Your task to perform on an android device: Clear all items from cart on newegg.com. Image 0: 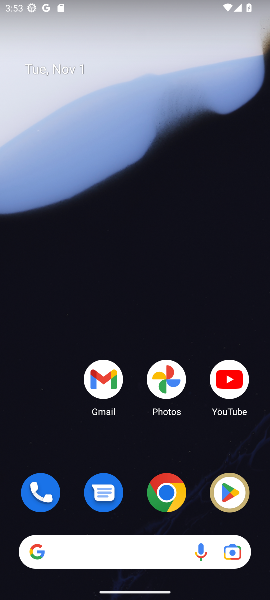
Step 0: click (168, 498)
Your task to perform on an android device: Clear all items from cart on newegg.com. Image 1: 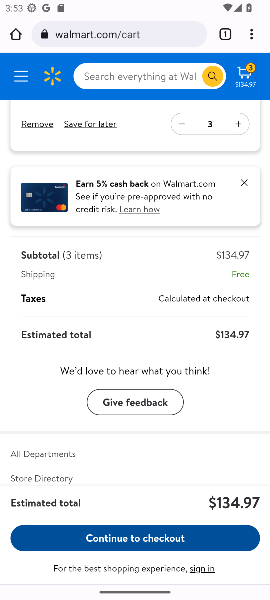
Step 1: click (119, 34)
Your task to perform on an android device: Clear all items from cart on newegg.com. Image 2: 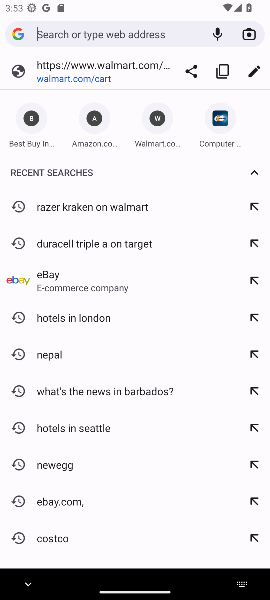
Step 2: type "newegg.com"
Your task to perform on an android device: Clear all items from cart on newegg.com. Image 3: 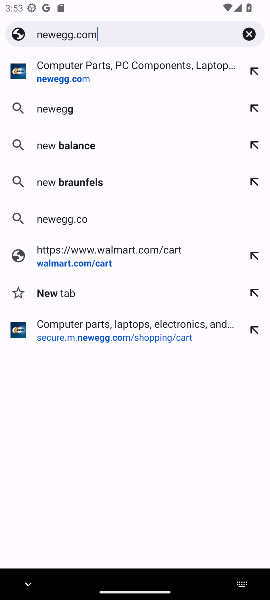
Step 3: type ""
Your task to perform on an android device: Clear all items from cart on newegg.com. Image 4: 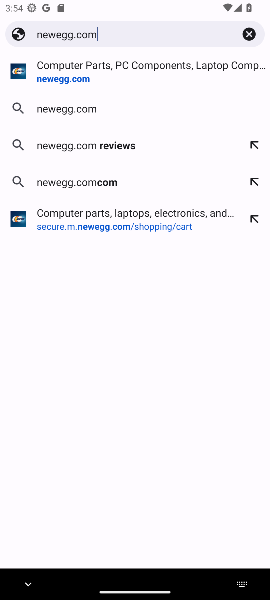
Step 4: click (113, 71)
Your task to perform on an android device: Clear all items from cart on newegg.com. Image 5: 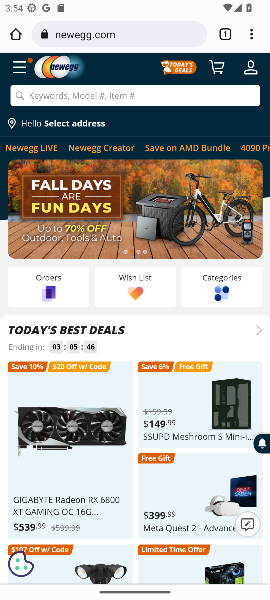
Step 5: click (223, 68)
Your task to perform on an android device: Clear all items from cart on newegg.com. Image 6: 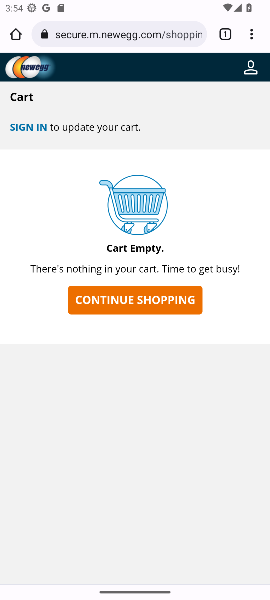
Step 6: click (169, 302)
Your task to perform on an android device: Clear all items from cart on newegg.com. Image 7: 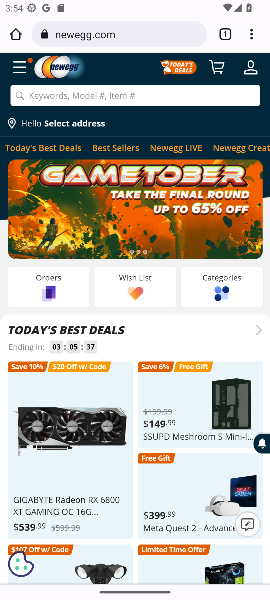
Step 7: drag from (97, 527) to (106, 295)
Your task to perform on an android device: Clear all items from cart on newegg.com. Image 8: 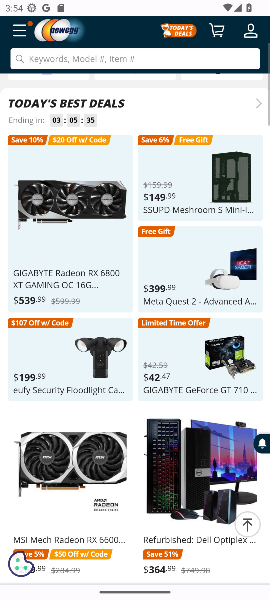
Step 8: drag from (115, 544) to (121, 311)
Your task to perform on an android device: Clear all items from cart on newegg.com. Image 9: 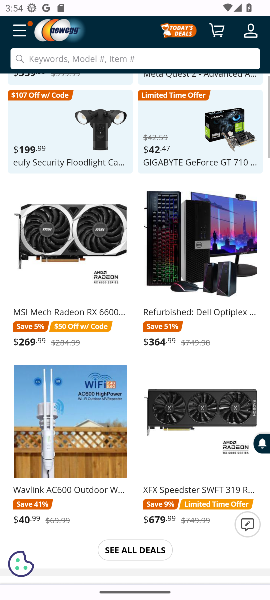
Step 9: drag from (107, 495) to (108, 316)
Your task to perform on an android device: Clear all items from cart on newegg.com. Image 10: 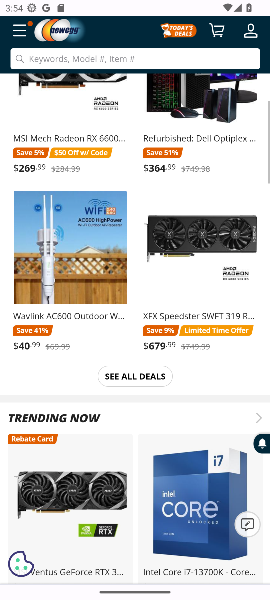
Step 10: drag from (112, 480) to (135, 314)
Your task to perform on an android device: Clear all items from cart on newegg.com. Image 11: 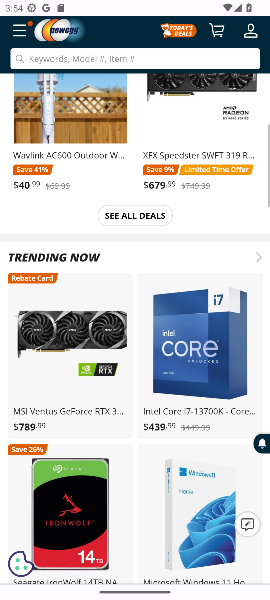
Step 11: drag from (130, 418) to (137, 287)
Your task to perform on an android device: Clear all items from cart on newegg.com. Image 12: 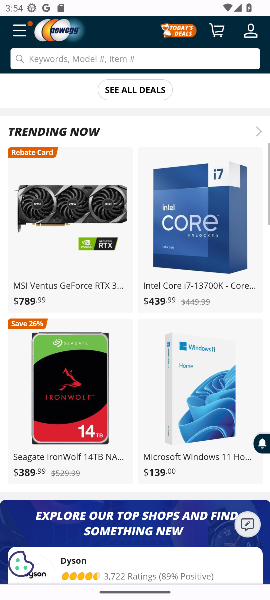
Step 12: drag from (121, 385) to (141, 301)
Your task to perform on an android device: Clear all items from cart on newegg.com. Image 13: 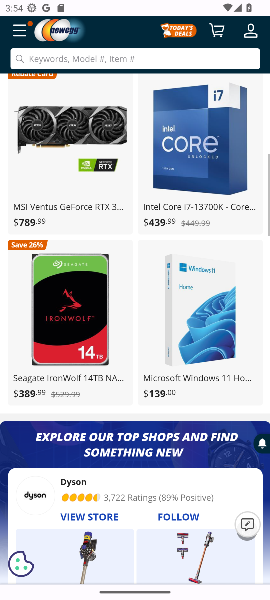
Step 13: drag from (131, 408) to (145, 294)
Your task to perform on an android device: Clear all items from cart on newegg.com. Image 14: 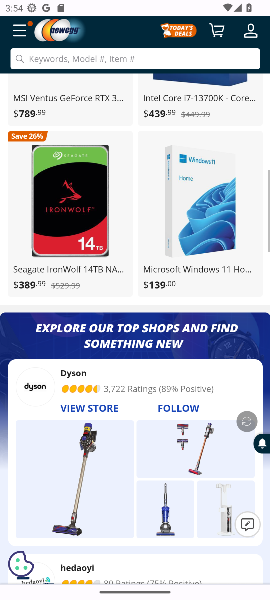
Step 14: drag from (133, 366) to (144, 300)
Your task to perform on an android device: Clear all items from cart on newegg.com. Image 15: 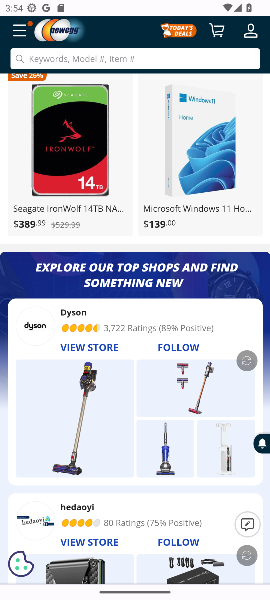
Step 15: drag from (166, 389) to (158, 304)
Your task to perform on an android device: Clear all items from cart on newegg.com. Image 16: 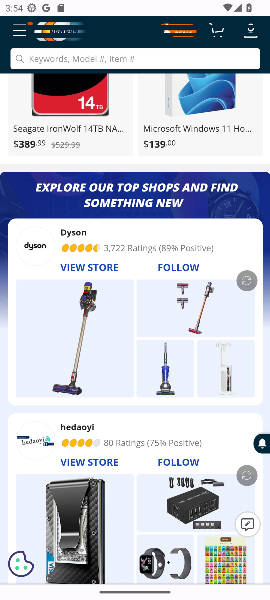
Step 16: drag from (140, 400) to (177, 264)
Your task to perform on an android device: Clear all items from cart on newegg.com. Image 17: 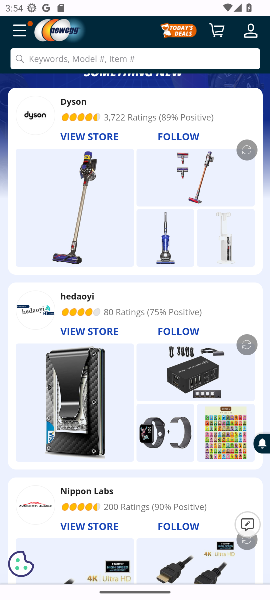
Step 17: drag from (139, 430) to (166, 272)
Your task to perform on an android device: Clear all items from cart on newegg.com. Image 18: 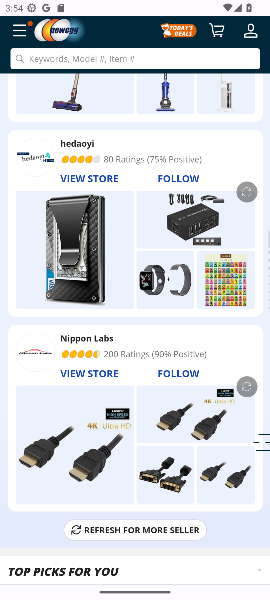
Step 18: drag from (168, 482) to (180, 247)
Your task to perform on an android device: Clear all items from cart on newegg.com. Image 19: 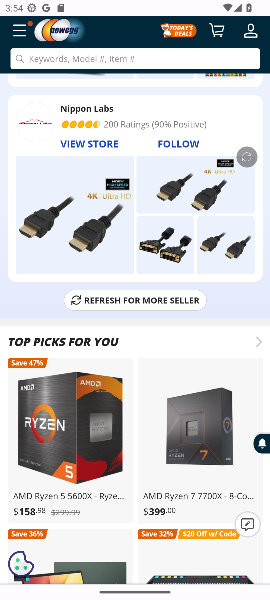
Step 19: drag from (173, 390) to (191, 239)
Your task to perform on an android device: Clear all items from cart on newegg.com. Image 20: 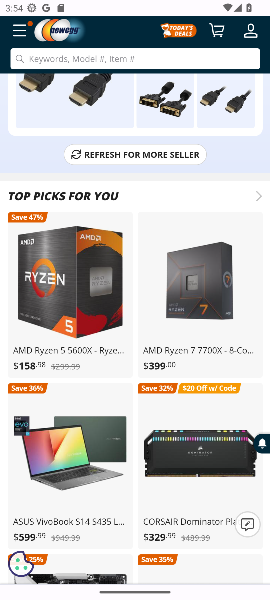
Step 20: drag from (211, 458) to (220, 254)
Your task to perform on an android device: Clear all items from cart on newegg.com. Image 21: 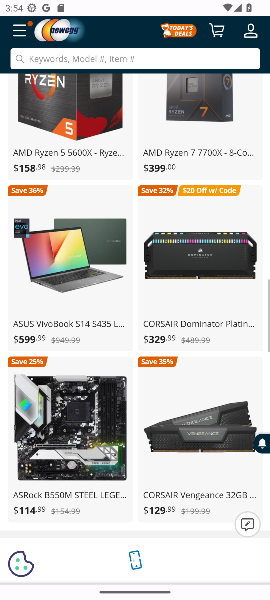
Step 21: drag from (185, 410) to (189, 284)
Your task to perform on an android device: Clear all items from cart on newegg.com. Image 22: 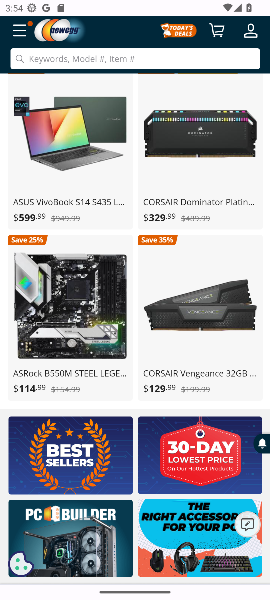
Step 22: drag from (189, 427) to (195, 284)
Your task to perform on an android device: Clear all items from cart on newegg.com. Image 23: 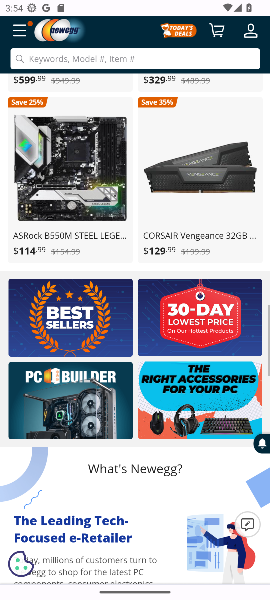
Step 23: drag from (203, 405) to (216, 337)
Your task to perform on an android device: Clear all items from cart on newegg.com. Image 24: 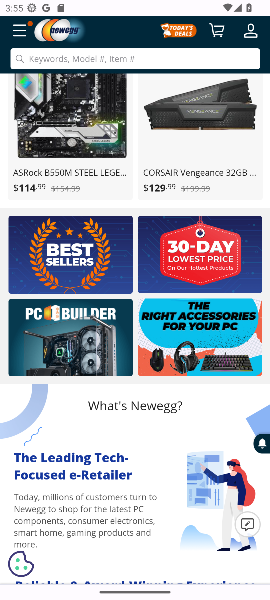
Step 24: drag from (185, 516) to (198, 164)
Your task to perform on an android device: Clear all items from cart on newegg.com. Image 25: 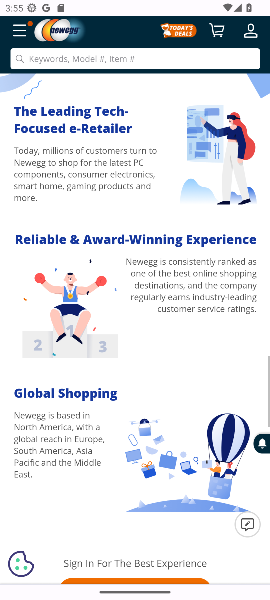
Step 25: drag from (208, 389) to (210, 224)
Your task to perform on an android device: Clear all items from cart on newegg.com. Image 26: 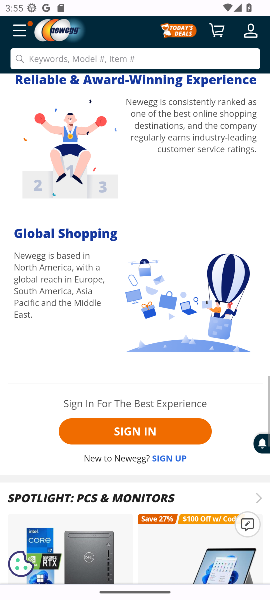
Step 26: drag from (205, 382) to (207, 210)
Your task to perform on an android device: Clear all items from cart on newegg.com. Image 27: 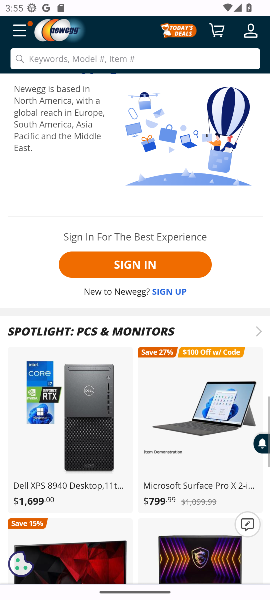
Step 27: drag from (205, 357) to (201, 170)
Your task to perform on an android device: Clear all items from cart on newegg.com. Image 28: 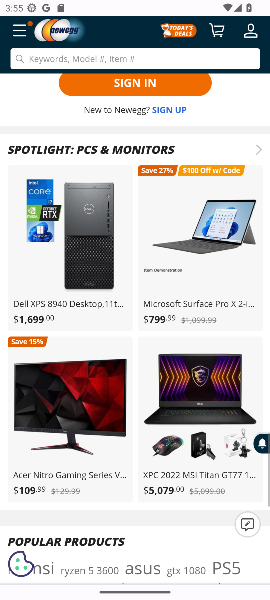
Step 28: drag from (179, 240) to (186, 180)
Your task to perform on an android device: Clear all items from cart on newegg.com. Image 29: 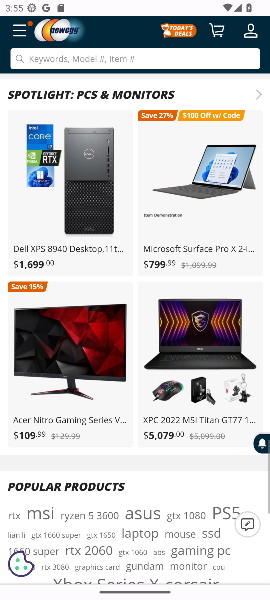
Step 29: drag from (173, 306) to (172, 196)
Your task to perform on an android device: Clear all items from cart on newegg.com. Image 30: 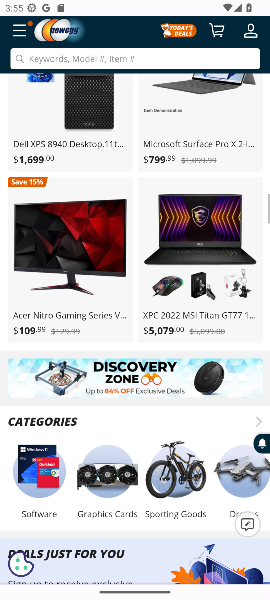
Step 30: drag from (183, 236) to (195, 173)
Your task to perform on an android device: Clear all items from cart on newegg.com. Image 31: 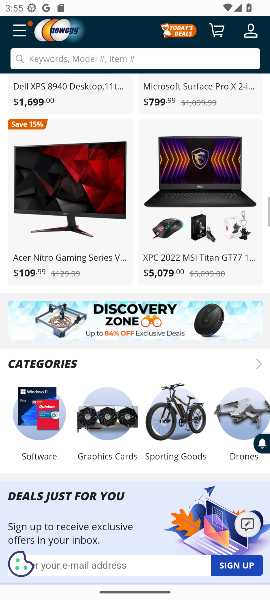
Step 31: drag from (213, 270) to (219, 166)
Your task to perform on an android device: Clear all items from cart on newegg.com. Image 32: 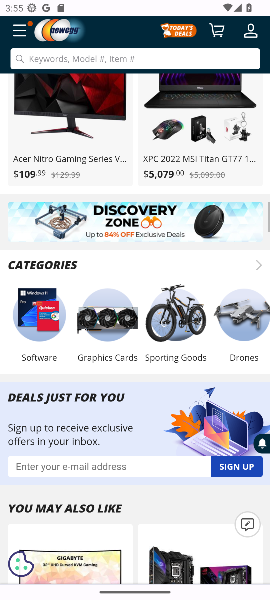
Step 32: drag from (206, 316) to (204, 187)
Your task to perform on an android device: Clear all items from cart on newegg.com. Image 33: 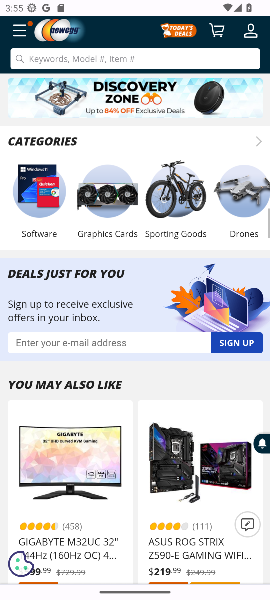
Step 33: drag from (189, 214) to (189, 182)
Your task to perform on an android device: Clear all items from cart on newegg.com. Image 34: 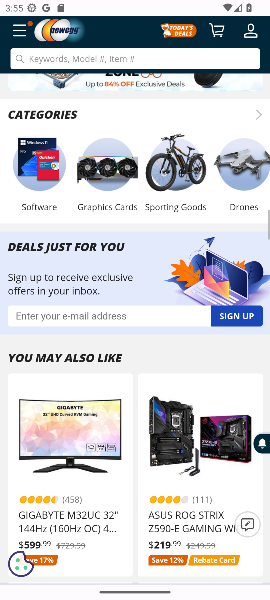
Step 34: drag from (189, 302) to (199, 195)
Your task to perform on an android device: Clear all items from cart on newegg.com. Image 35: 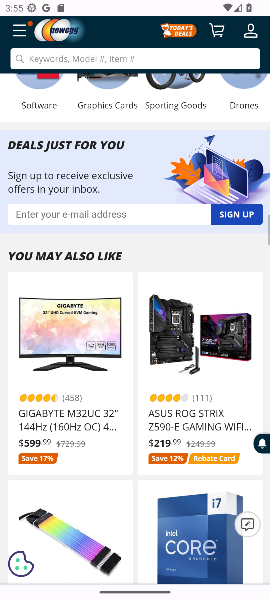
Step 35: drag from (197, 316) to (198, 188)
Your task to perform on an android device: Clear all items from cart on newegg.com. Image 36: 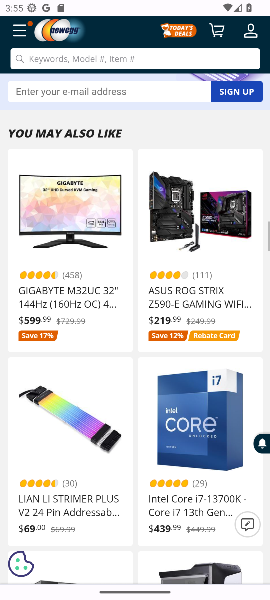
Step 36: drag from (186, 235) to (186, 154)
Your task to perform on an android device: Clear all items from cart on newegg.com. Image 37: 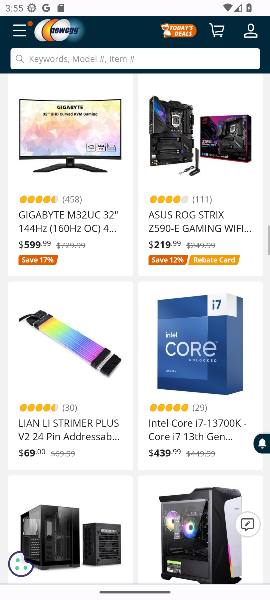
Step 37: drag from (180, 277) to (195, 123)
Your task to perform on an android device: Clear all items from cart on newegg.com. Image 38: 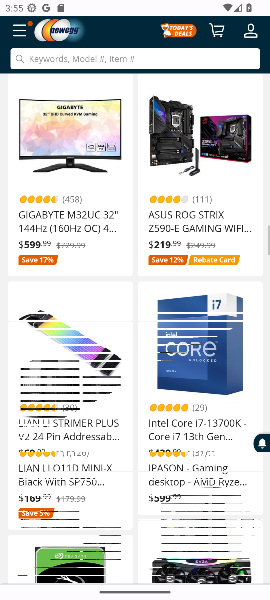
Step 38: drag from (178, 250) to (203, 91)
Your task to perform on an android device: Clear all items from cart on newegg.com. Image 39: 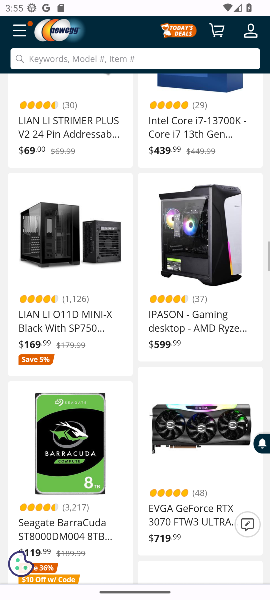
Step 39: drag from (191, 258) to (210, 104)
Your task to perform on an android device: Clear all items from cart on newegg.com. Image 40: 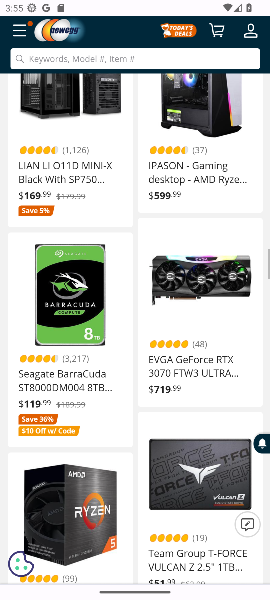
Step 40: drag from (197, 234) to (204, 96)
Your task to perform on an android device: Clear all items from cart on newegg.com. Image 41: 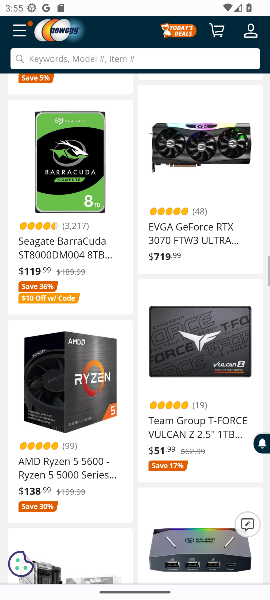
Step 41: drag from (187, 230) to (209, 97)
Your task to perform on an android device: Clear all items from cart on newegg.com. Image 42: 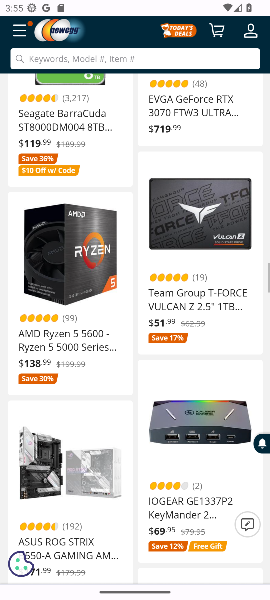
Step 42: drag from (188, 155) to (194, 103)
Your task to perform on an android device: Clear all items from cart on newegg.com. Image 43: 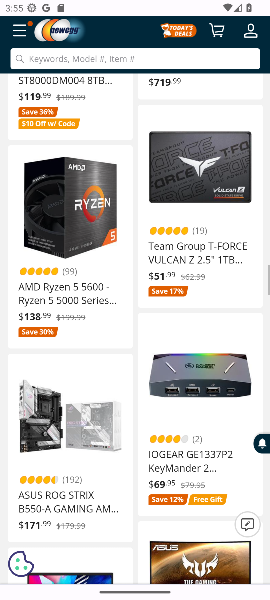
Step 43: drag from (175, 214) to (190, 117)
Your task to perform on an android device: Clear all items from cart on newegg.com. Image 44: 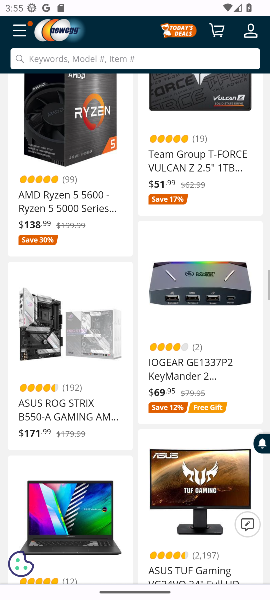
Step 44: drag from (181, 221) to (198, 102)
Your task to perform on an android device: Clear all items from cart on newegg.com. Image 45: 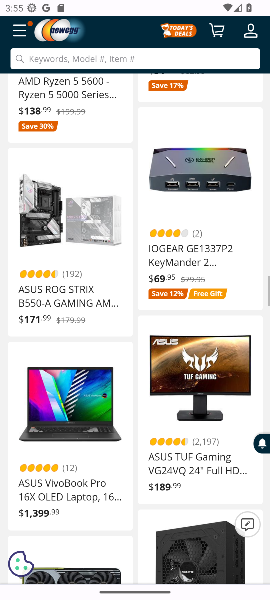
Step 45: click (210, 116)
Your task to perform on an android device: Clear all items from cart on newegg.com. Image 46: 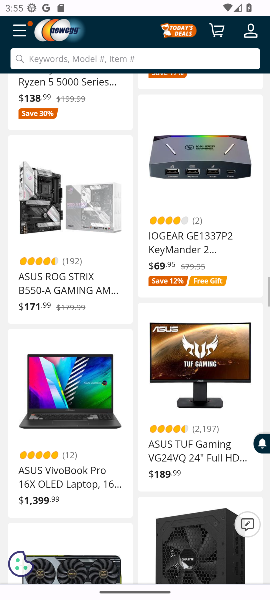
Step 46: drag from (198, 174) to (203, 118)
Your task to perform on an android device: Clear all items from cart on newegg.com. Image 47: 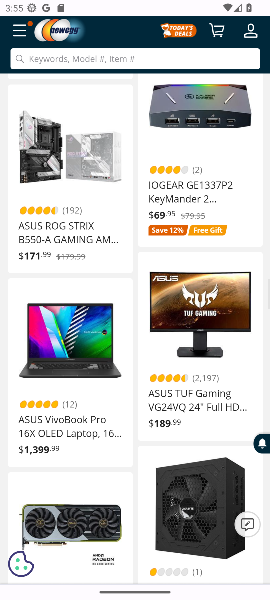
Step 47: click (195, 153)
Your task to perform on an android device: Clear all items from cart on newegg.com. Image 48: 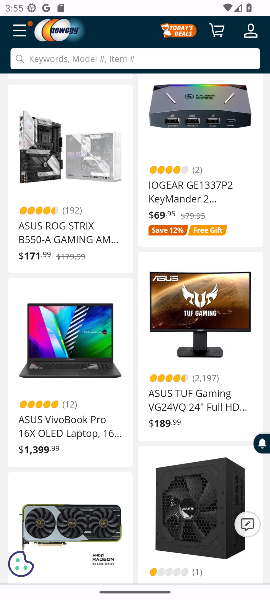
Step 48: click (172, 163)
Your task to perform on an android device: Clear all items from cart on newegg.com. Image 49: 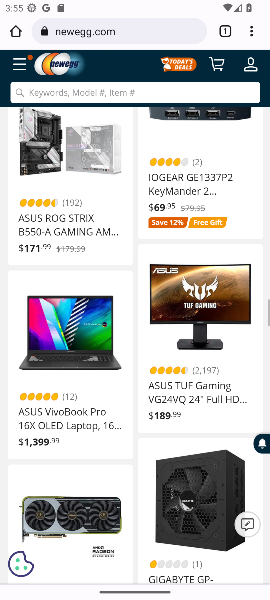
Step 49: drag from (168, 187) to (175, 127)
Your task to perform on an android device: Clear all items from cart on newegg.com. Image 50: 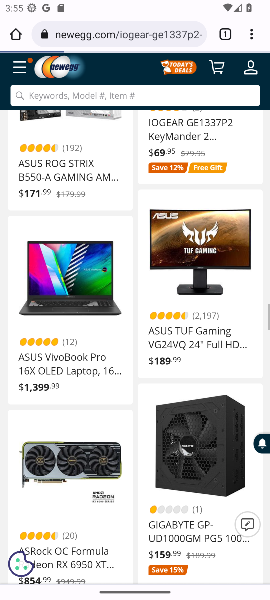
Step 50: drag from (193, 191) to (201, 144)
Your task to perform on an android device: Clear all items from cart on newegg.com. Image 51: 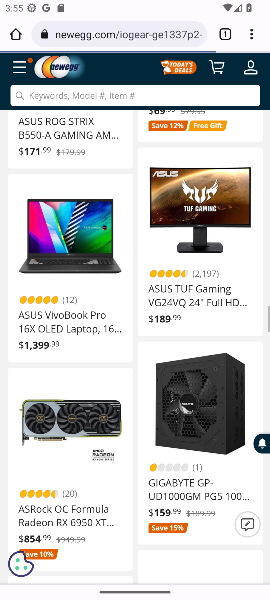
Step 51: drag from (196, 290) to (192, 202)
Your task to perform on an android device: Clear all items from cart on newegg.com. Image 52: 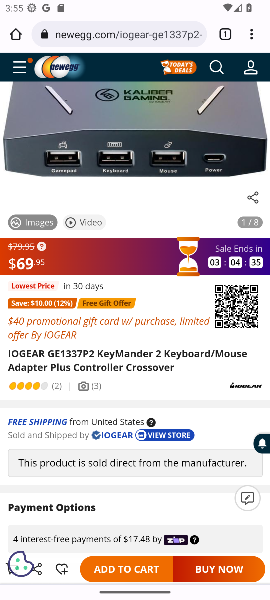
Step 52: drag from (183, 340) to (183, 140)
Your task to perform on an android device: Clear all items from cart on newegg.com. Image 53: 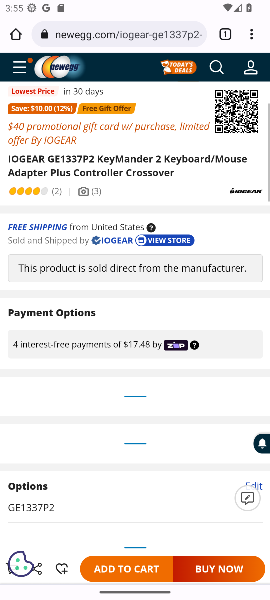
Step 53: drag from (179, 363) to (190, 196)
Your task to perform on an android device: Clear all items from cart on newegg.com. Image 54: 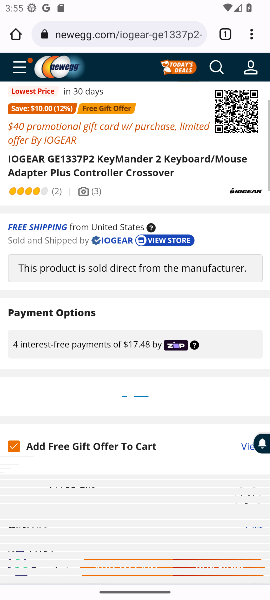
Step 54: drag from (204, 287) to (194, 223)
Your task to perform on an android device: Clear all items from cart on newegg.com. Image 55: 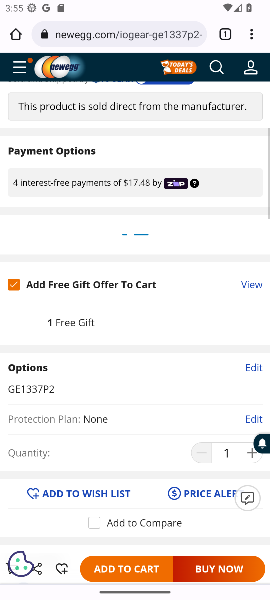
Step 55: drag from (197, 283) to (190, 138)
Your task to perform on an android device: Clear all items from cart on newegg.com. Image 56: 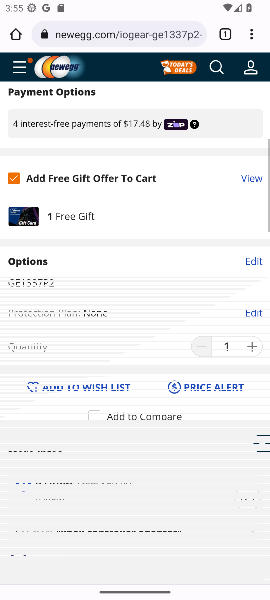
Step 56: drag from (209, 273) to (207, 133)
Your task to perform on an android device: Clear all items from cart on newegg.com. Image 57: 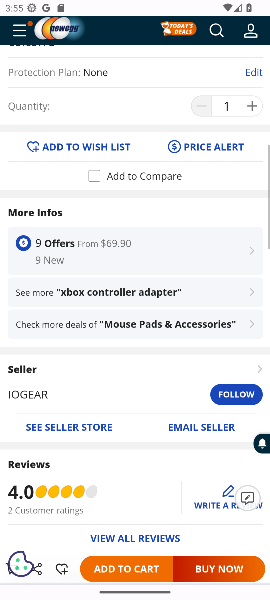
Step 57: drag from (199, 199) to (203, 141)
Your task to perform on an android device: Clear all items from cart on newegg.com. Image 58: 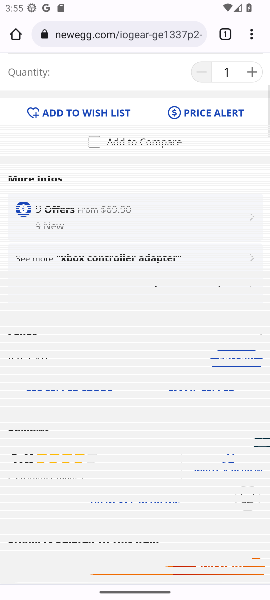
Step 58: drag from (174, 265) to (177, 188)
Your task to perform on an android device: Clear all items from cart on newegg.com. Image 59: 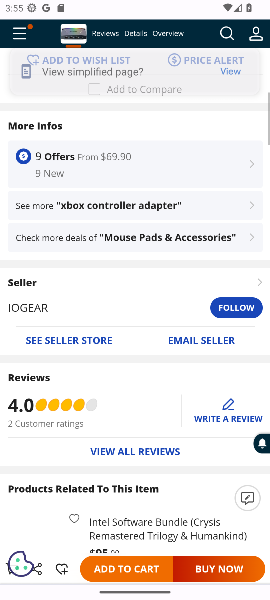
Step 59: drag from (150, 292) to (139, 168)
Your task to perform on an android device: Clear all items from cart on newegg.com. Image 60: 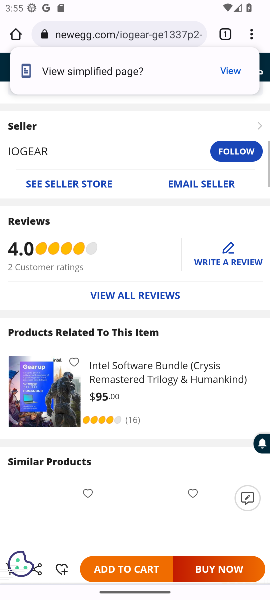
Step 60: drag from (122, 198) to (130, 156)
Your task to perform on an android device: Clear all items from cart on newegg.com. Image 61: 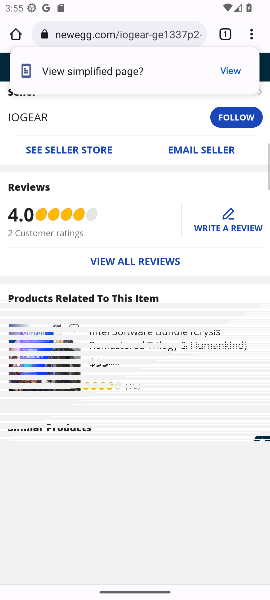
Step 61: drag from (131, 267) to (141, 132)
Your task to perform on an android device: Clear all items from cart on newegg.com. Image 62: 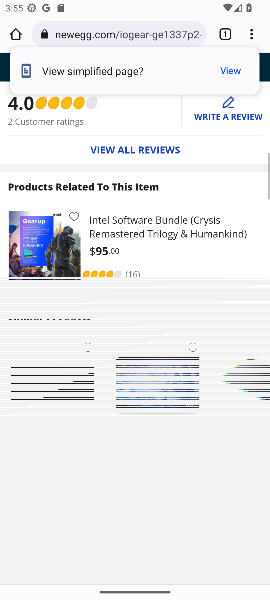
Step 62: drag from (155, 244) to (157, 145)
Your task to perform on an android device: Clear all items from cart on newegg.com. Image 63: 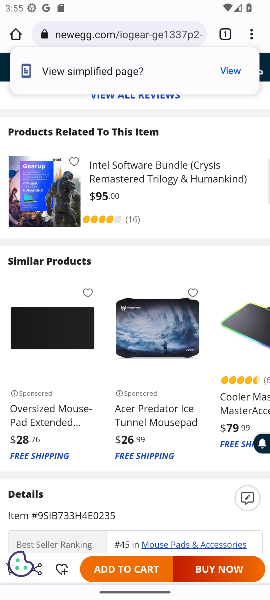
Step 63: drag from (181, 209) to (182, 107)
Your task to perform on an android device: Clear all items from cart on newegg.com. Image 64: 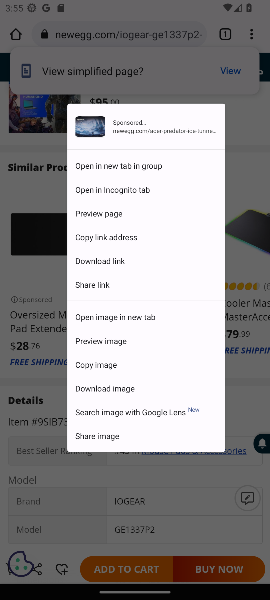
Step 64: drag from (184, 189) to (178, 101)
Your task to perform on an android device: Clear all items from cart on newegg.com. Image 65: 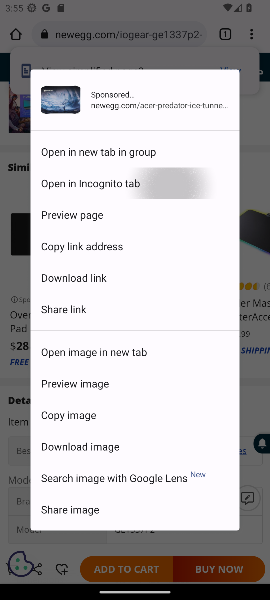
Step 65: drag from (154, 331) to (158, 296)
Your task to perform on an android device: Clear all items from cart on newegg.com. Image 66: 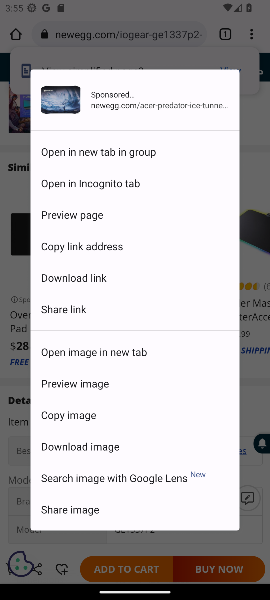
Step 66: click (261, 231)
Your task to perform on an android device: Clear all items from cart on newegg.com. Image 67: 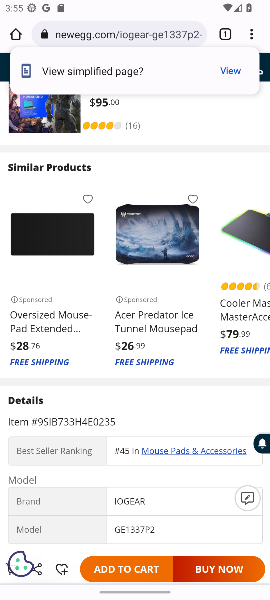
Step 67: task complete